Your task to perform on an android device: change notifications settings Image 0: 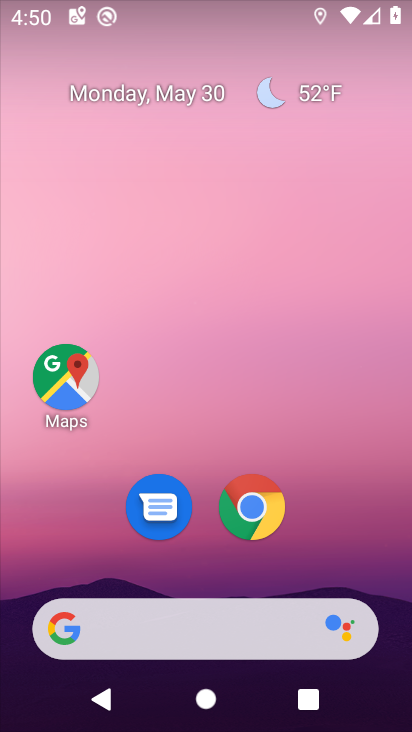
Step 0: drag from (339, 562) to (327, 91)
Your task to perform on an android device: change notifications settings Image 1: 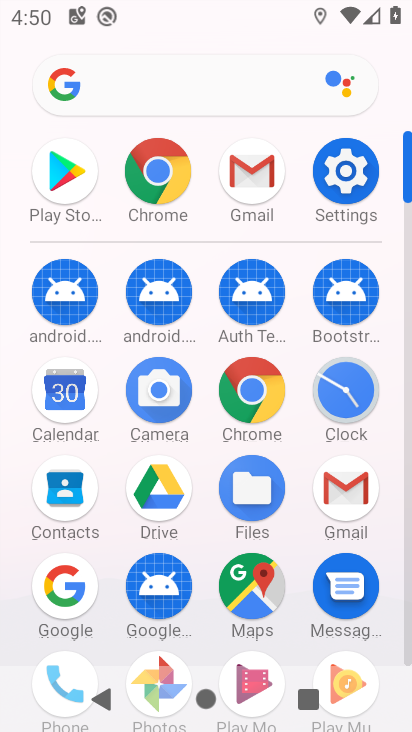
Step 1: click (313, 191)
Your task to perform on an android device: change notifications settings Image 2: 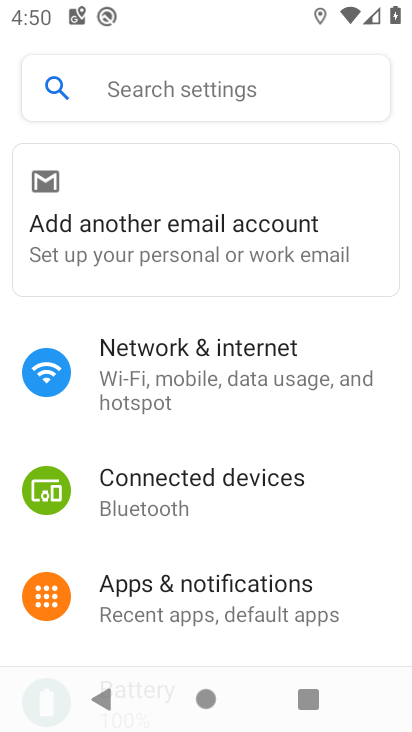
Step 2: click (274, 599)
Your task to perform on an android device: change notifications settings Image 3: 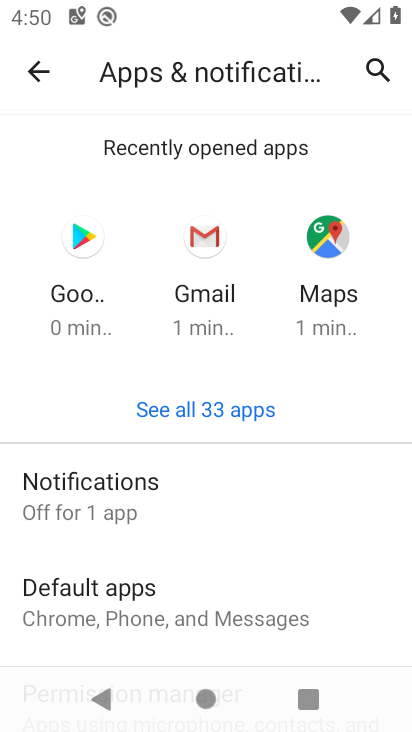
Step 3: click (165, 492)
Your task to perform on an android device: change notifications settings Image 4: 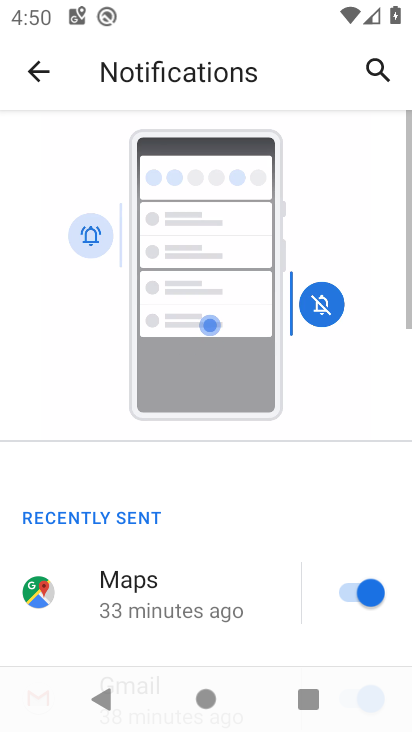
Step 4: drag from (165, 492) to (197, 136)
Your task to perform on an android device: change notifications settings Image 5: 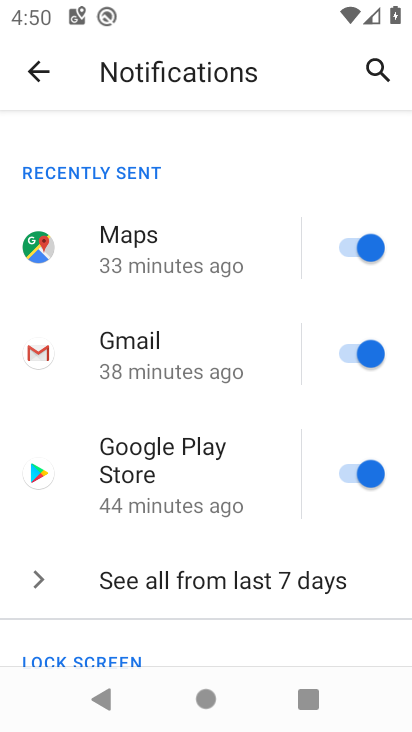
Step 5: drag from (181, 626) to (190, 511)
Your task to perform on an android device: change notifications settings Image 6: 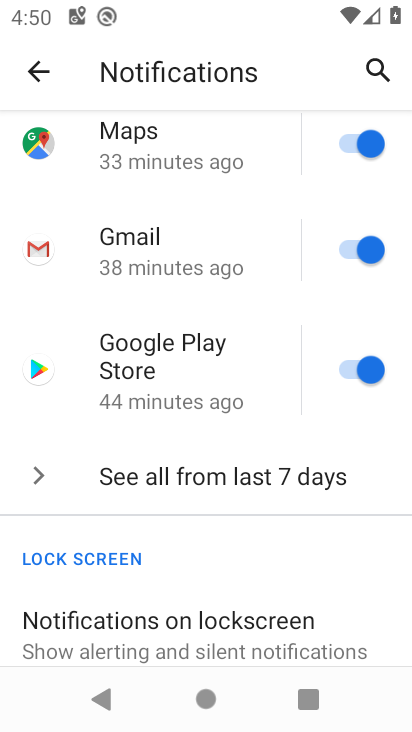
Step 6: drag from (195, 651) to (238, 506)
Your task to perform on an android device: change notifications settings Image 7: 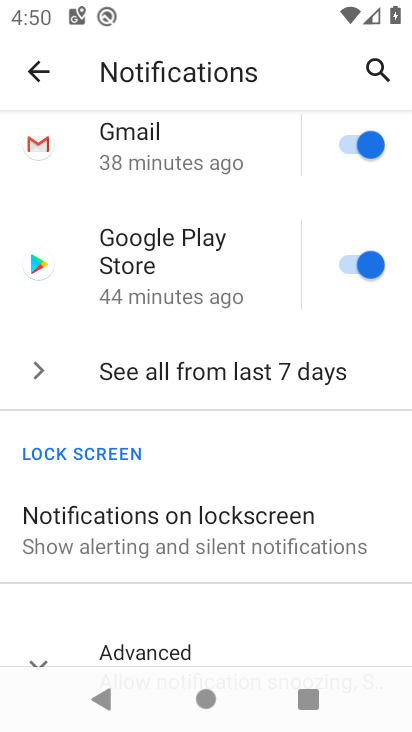
Step 7: drag from (234, 505) to (269, 287)
Your task to perform on an android device: change notifications settings Image 8: 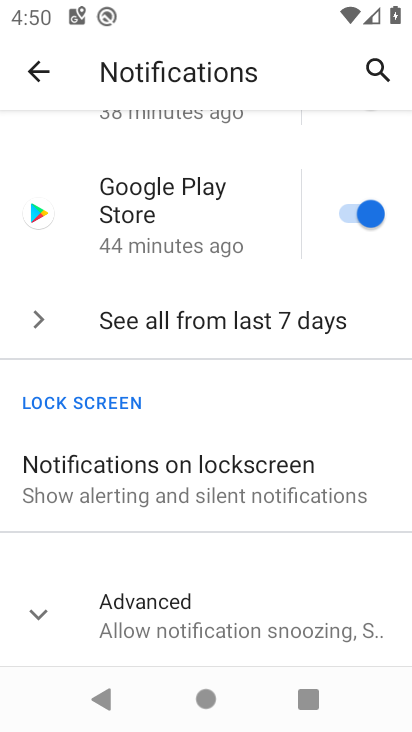
Step 8: drag from (264, 289) to (328, 56)
Your task to perform on an android device: change notifications settings Image 9: 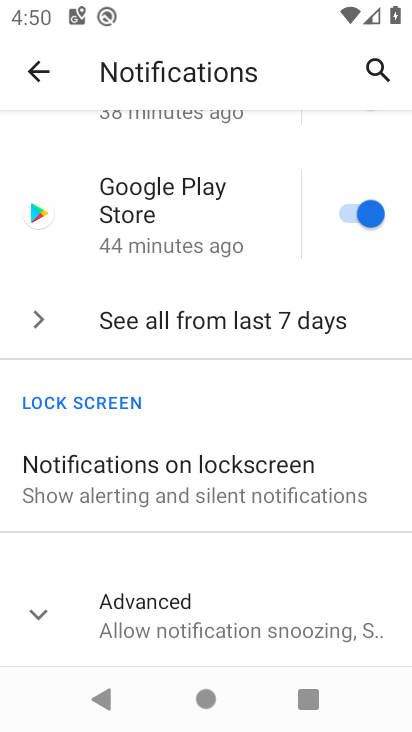
Step 9: drag from (211, 407) to (243, 294)
Your task to perform on an android device: change notifications settings Image 10: 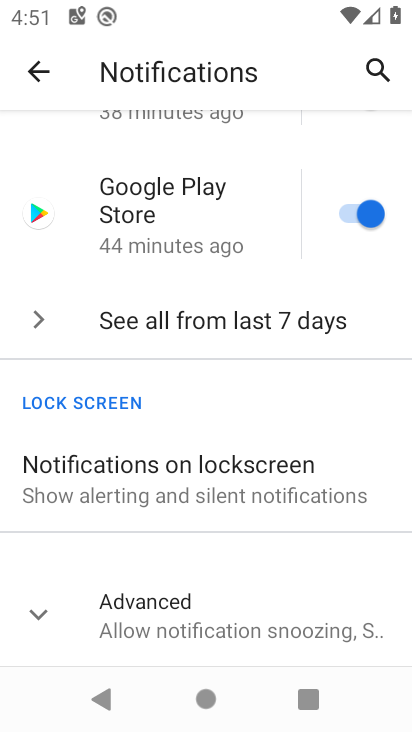
Step 10: click (220, 623)
Your task to perform on an android device: change notifications settings Image 11: 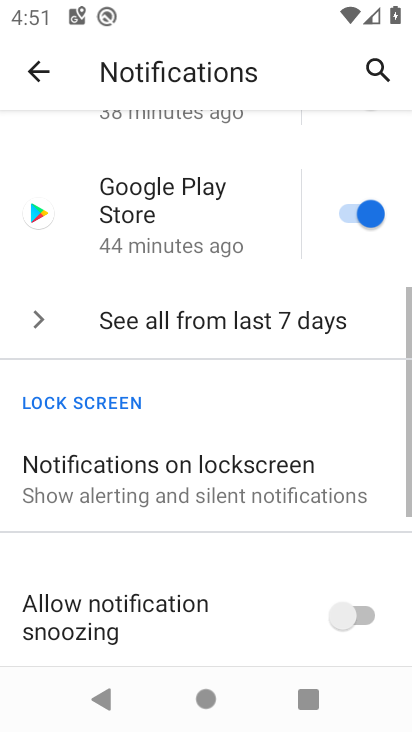
Step 11: drag from (220, 623) to (236, 139)
Your task to perform on an android device: change notifications settings Image 12: 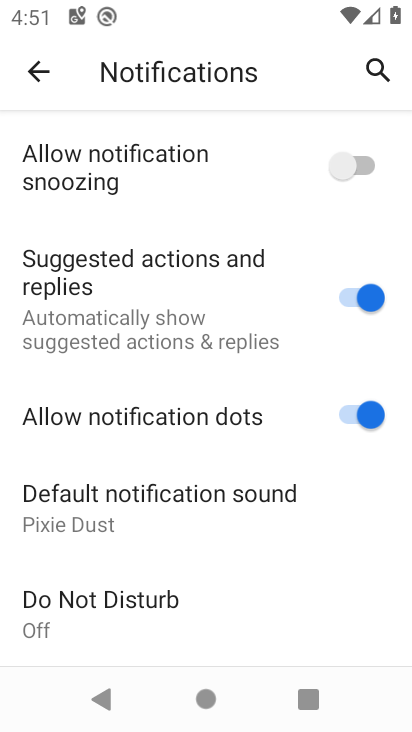
Step 12: click (255, 370)
Your task to perform on an android device: change notifications settings Image 13: 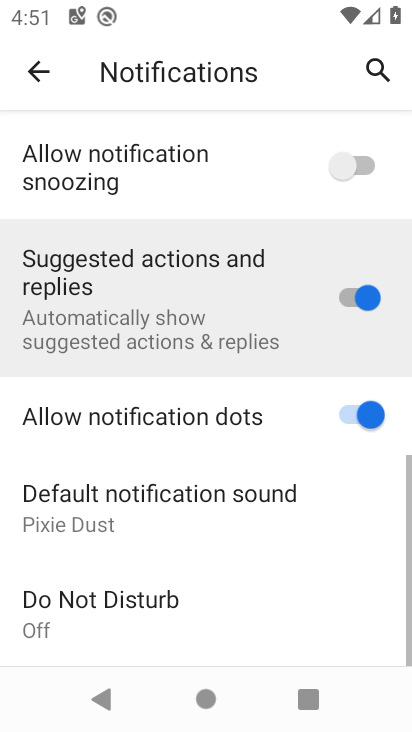
Step 13: click (281, 269)
Your task to perform on an android device: change notifications settings Image 14: 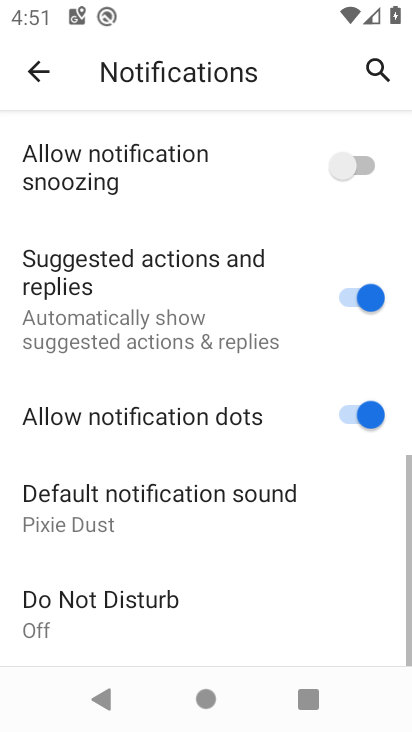
Step 14: click (309, 164)
Your task to perform on an android device: change notifications settings Image 15: 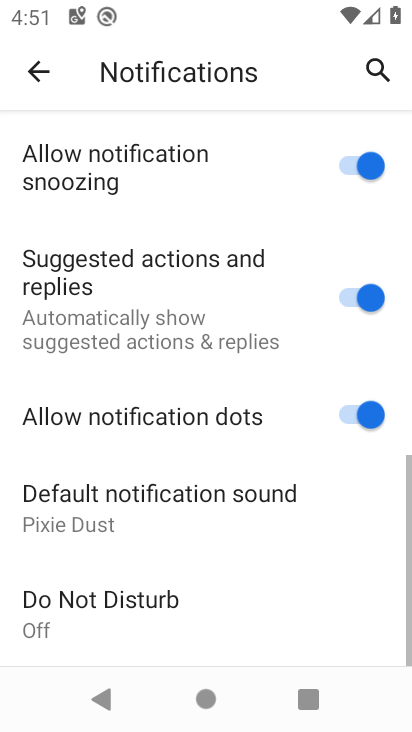
Step 15: click (224, 312)
Your task to perform on an android device: change notifications settings Image 16: 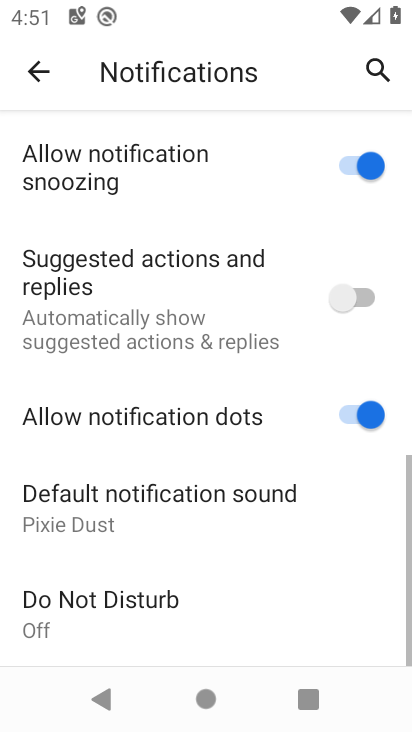
Step 16: click (239, 438)
Your task to perform on an android device: change notifications settings Image 17: 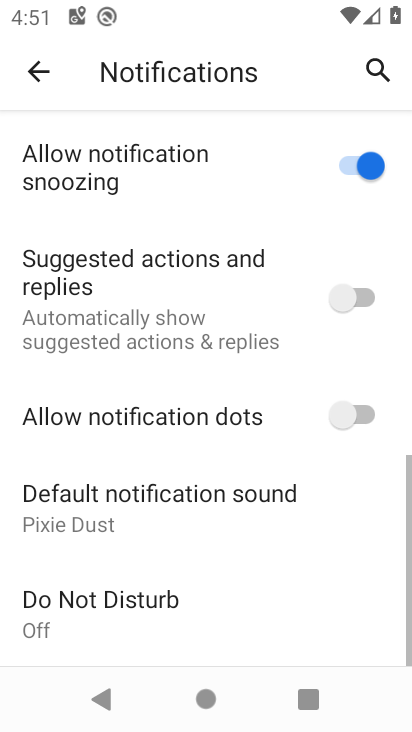
Step 17: task complete